Your task to perform on an android device: turn off location history Image 0: 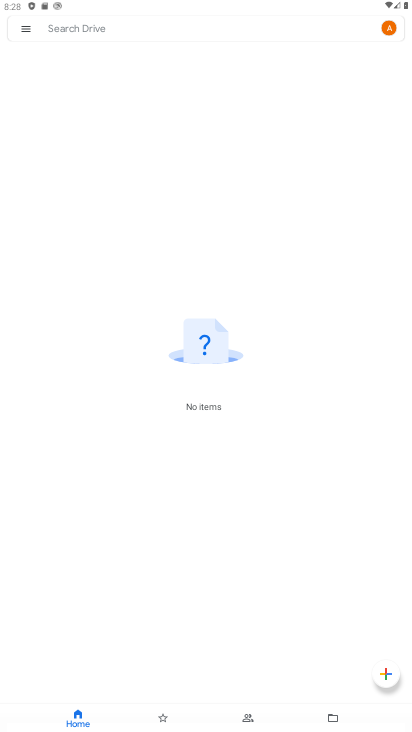
Step 0: press home button
Your task to perform on an android device: turn off location history Image 1: 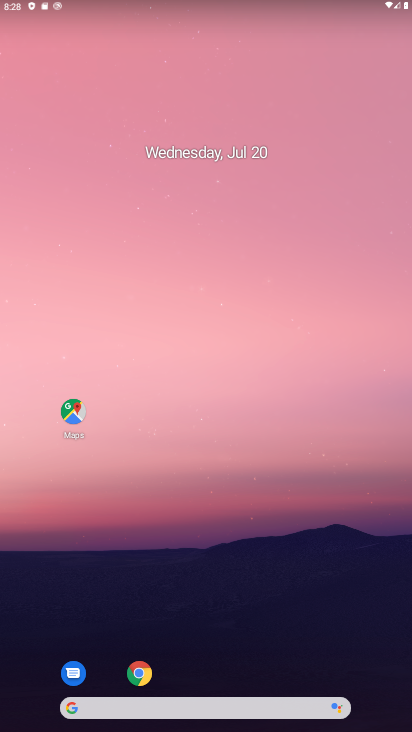
Step 1: drag from (220, 723) to (226, 200)
Your task to perform on an android device: turn off location history Image 2: 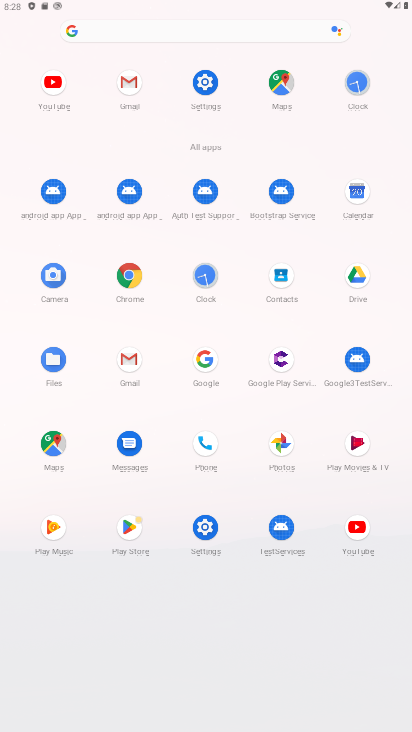
Step 2: click (204, 78)
Your task to perform on an android device: turn off location history Image 3: 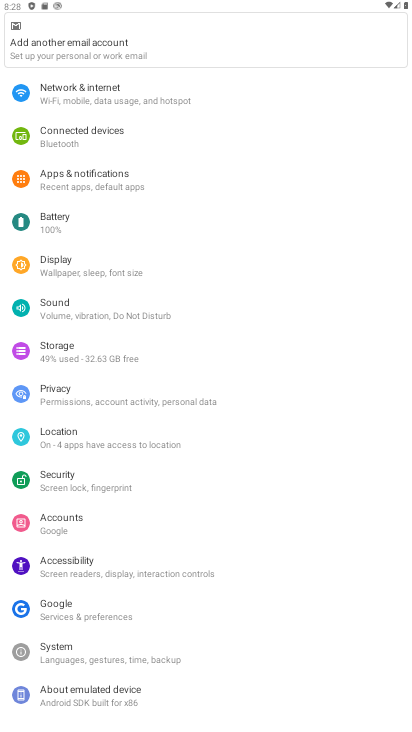
Step 3: click (57, 435)
Your task to perform on an android device: turn off location history Image 4: 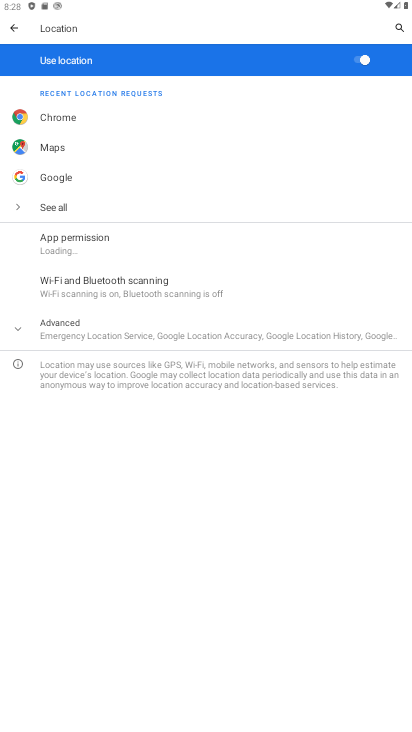
Step 4: click (75, 330)
Your task to perform on an android device: turn off location history Image 5: 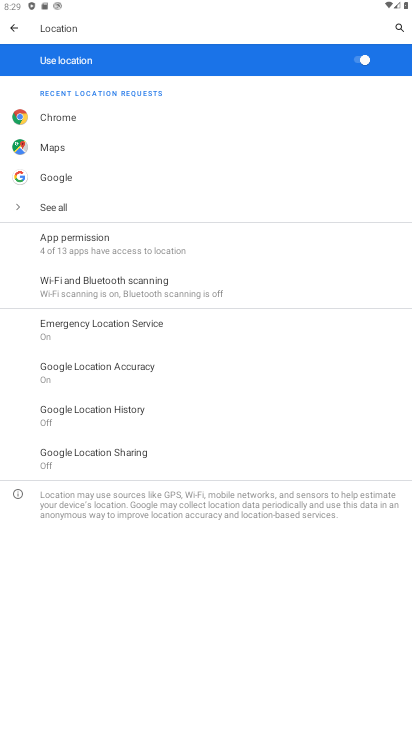
Step 5: click (78, 410)
Your task to perform on an android device: turn off location history Image 6: 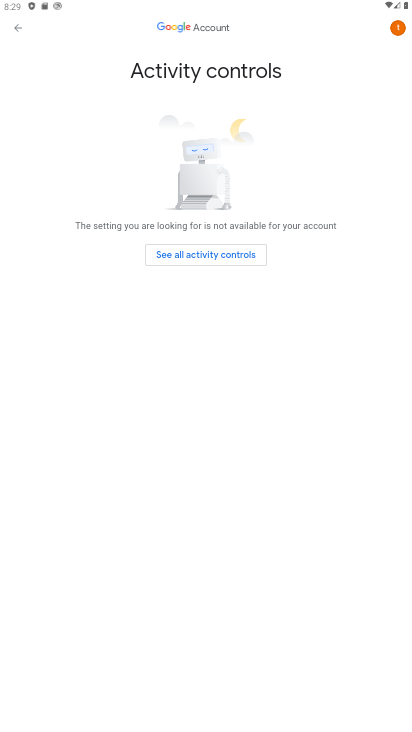
Step 6: click (206, 253)
Your task to perform on an android device: turn off location history Image 7: 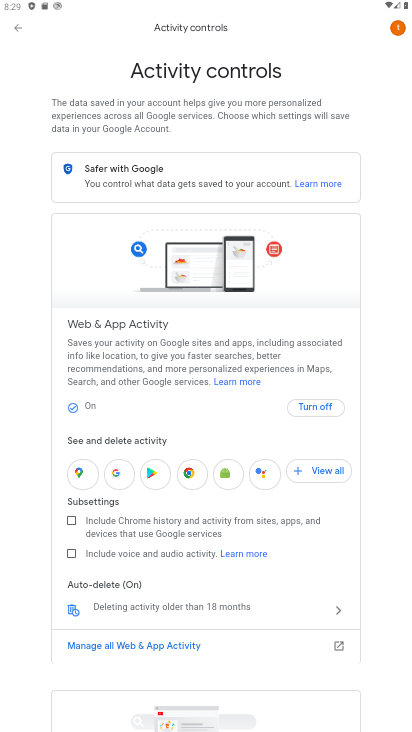
Step 7: click (318, 406)
Your task to perform on an android device: turn off location history Image 8: 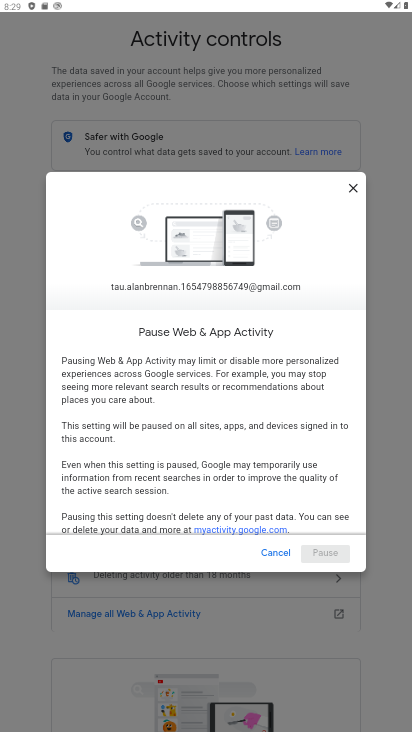
Step 8: drag from (267, 502) to (267, 285)
Your task to perform on an android device: turn off location history Image 9: 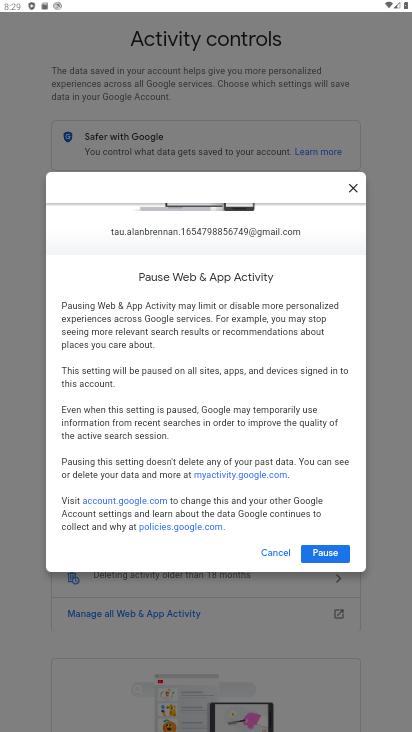
Step 9: click (330, 557)
Your task to perform on an android device: turn off location history Image 10: 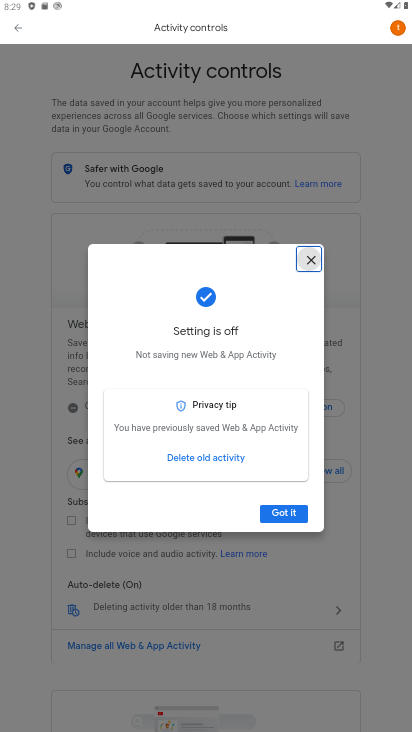
Step 10: click (292, 515)
Your task to perform on an android device: turn off location history Image 11: 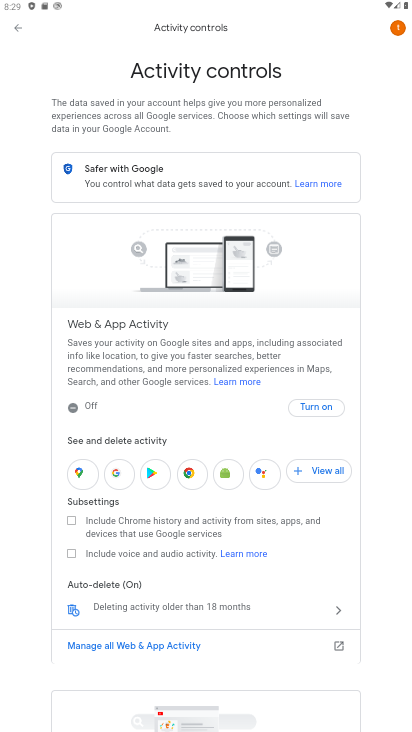
Step 11: task complete